Your task to perform on an android device: open app "Spotify" (install if not already installed) and go to login screen Image 0: 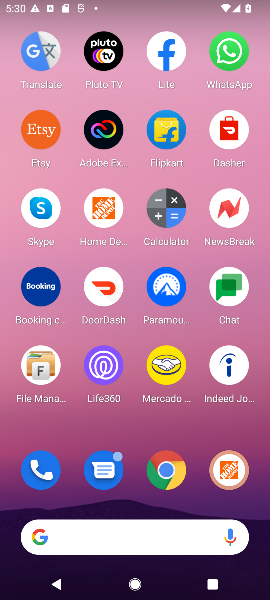
Step 0: drag from (128, 424) to (127, 170)
Your task to perform on an android device: open app "Spotify" (install if not already installed) and go to login screen Image 1: 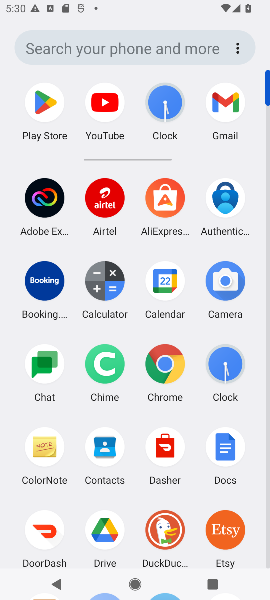
Step 1: click (50, 94)
Your task to perform on an android device: open app "Spotify" (install if not already installed) and go to login screen Image 2: 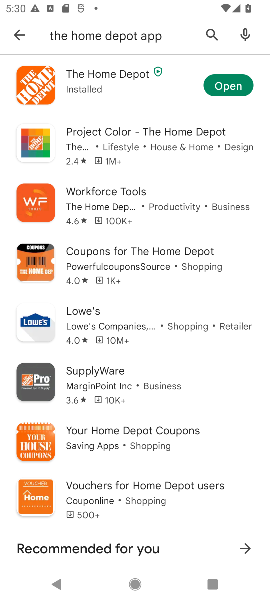
Step 2: click (16, 36)
Your task to perform on an android device: open app "Spotify" (install if not already installed) and go to login screen Image 3: 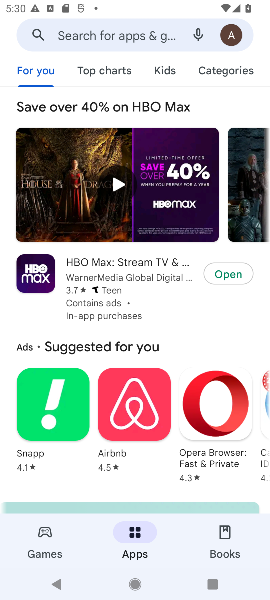
Step 3: click (141, 25)
Your task to perform on an android device: open app "Spotify" (install if not already installed) and go to login screen Image 4: 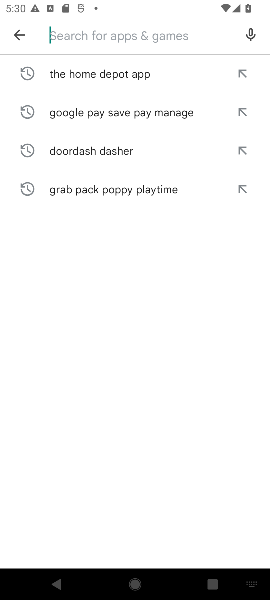
Step 4: type "Spotify "
Your task to perform on an android device: open app "Spotify" (install if not already installed) and go to login screen Image 5: 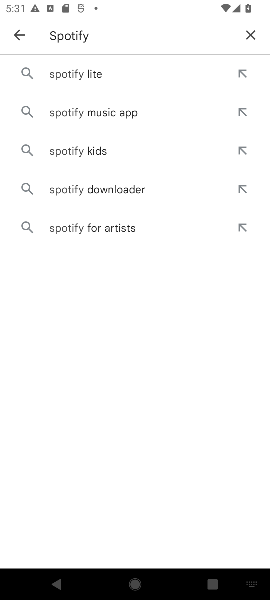
Step 5: click (72, 105)
Your task to perform on an android device: open app "Spotify" (install if not already installed) and go to login screen Image 6: 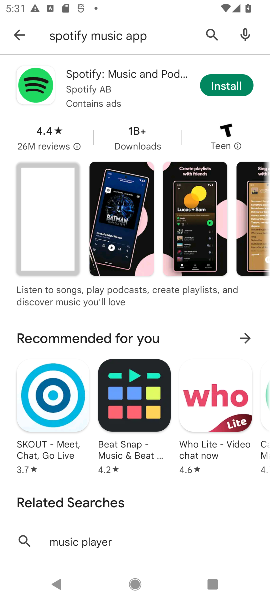
Step 6: click (230, 94)
Your task to perform on an android device: open app "Spotify" (install if not already installed) and go to login screen Image 7: 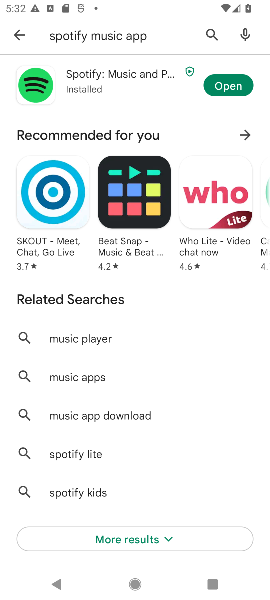
Step 7: click (227, 84)
Your task to perform on an android device: open app "Spotify" (install if not already installed) and go to login screen Image 8: 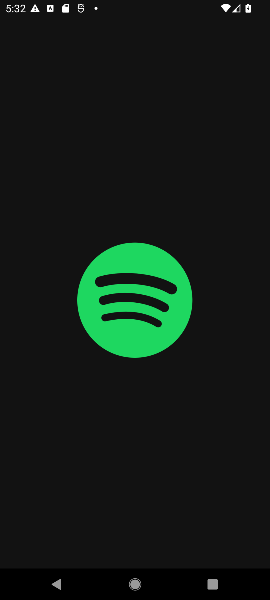
Step 8: task complete